Your task to perform on an android device: What's on my calendar tomorrow? Image 0: 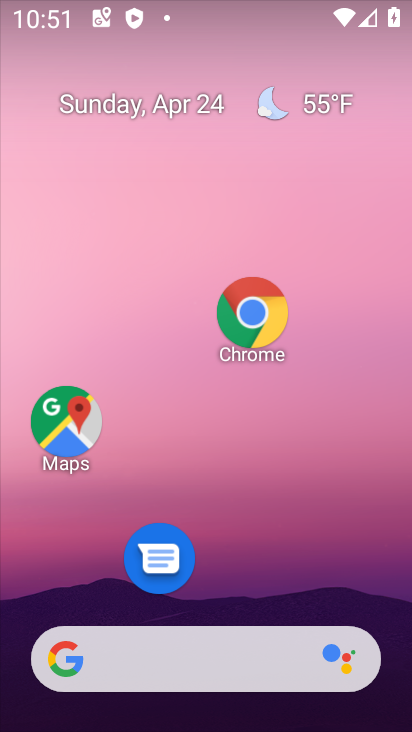
Step 0: drag from (305, 721) to (243, 2)
Your task to perform on an android device: What's on my calendar tomorrow? Image 1: 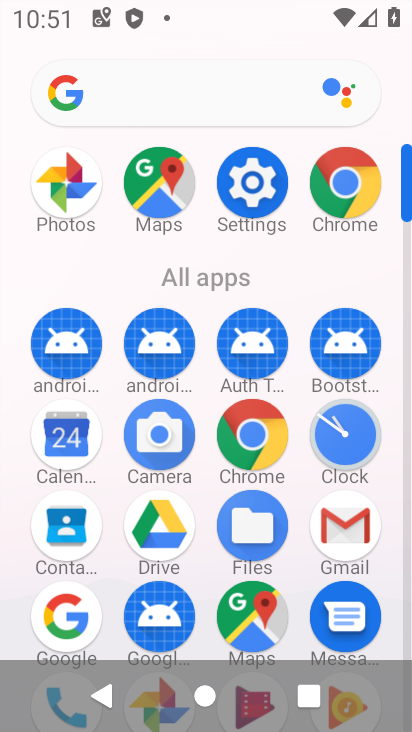
Step 1: click (168, 131)
Your task to perform on an android device: What's on my calendar tomorrow? Image 2: 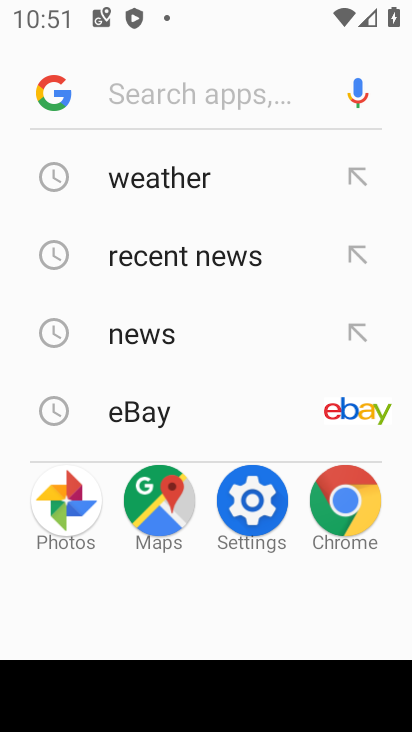
Step 2: press home button
Your task to perform on an android device: What's on my calendar tomorrow? Image 3: 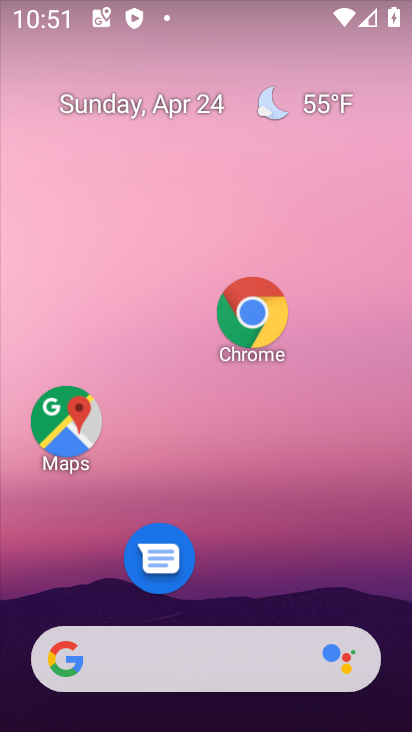
Step 3: drag from (238, 362) to (154, 72)
Your task to perform on an android device: What's on my calendar tomorrow? Image 4: 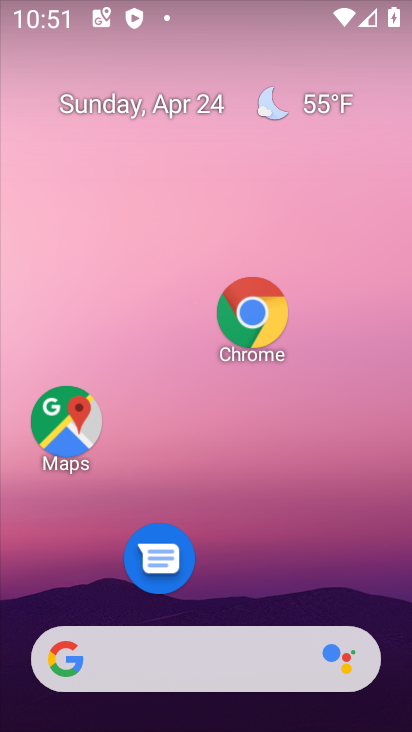
Step 4: drag from (273, 543) to (222, 304)
Your task to perform on an android device: What's on my calendar tomorrow? Image 5: 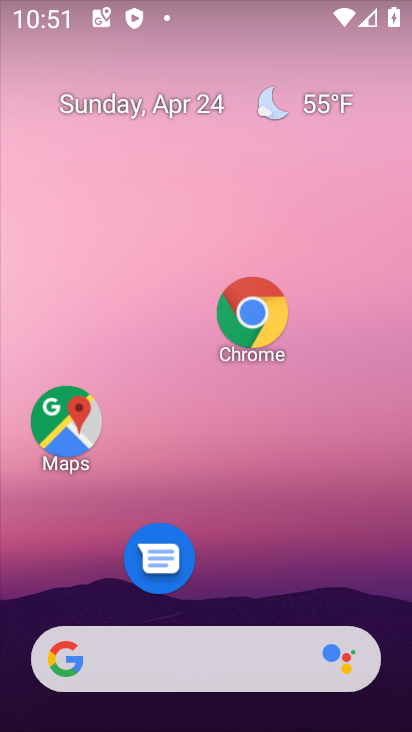
Step 5: drag from (229, 655) to (223, 40)
Your task to perform on an android device: What's on my calendar tomorrow? Image 6: 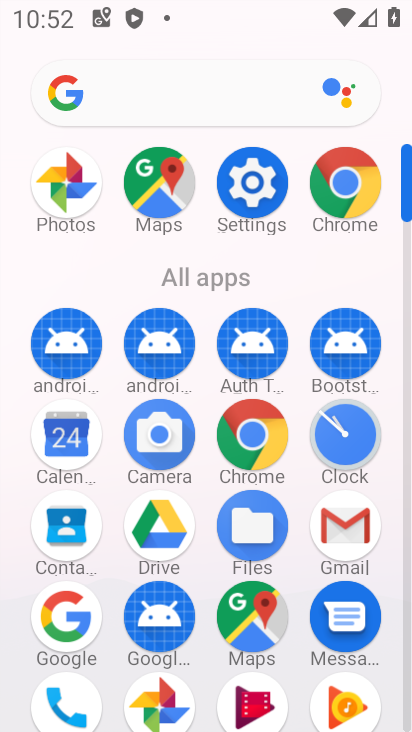
Step 6: click (66, 436)
Your task to perform on an android device: What's on my calendar tomorrow? Image 7: 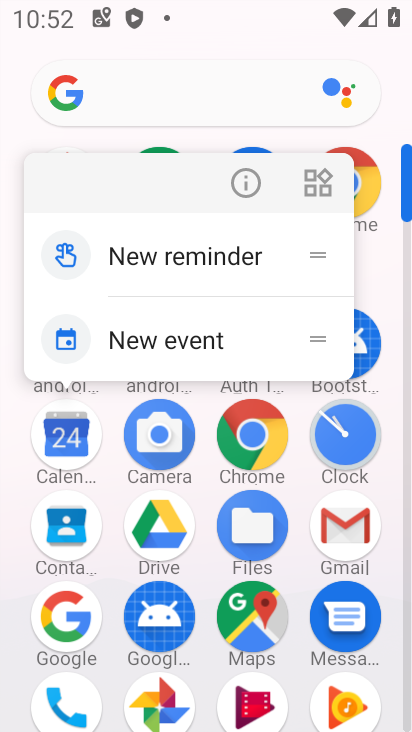
Step 7: click (71, 436)
Your task to perform on an android device: What's on my calendar tomorrow? Image 8: 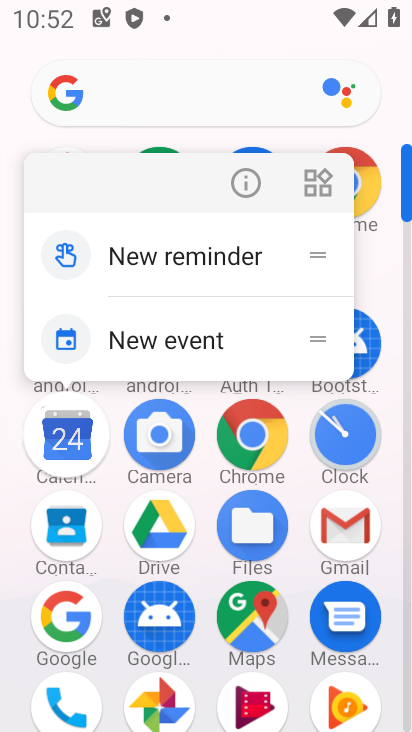
Step 8: click (71, 436)
Your task to perform on an android device: What's on my calendar tomorrow? Image 9: 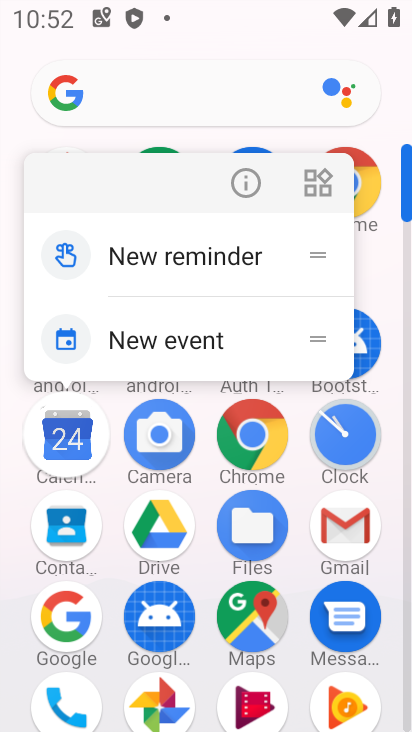
Step 9: click (71, 436)
Your task to perform on an android device: What's on my calendar tomorrow? Image 10: 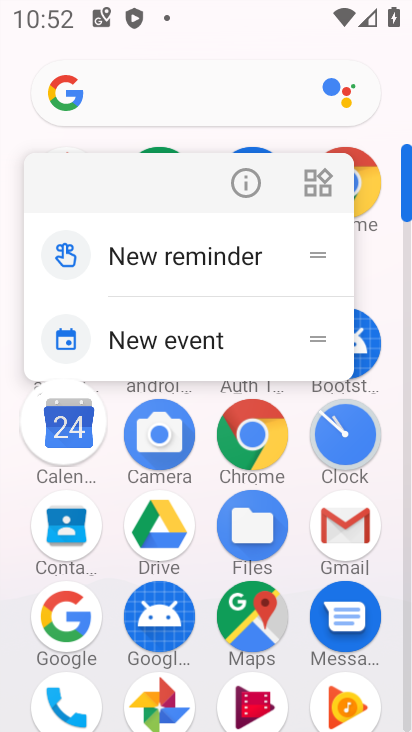
Step 10: click (65, 422)
Your task to perform on an android device: What's on my calendar tomorrow? Image 11: 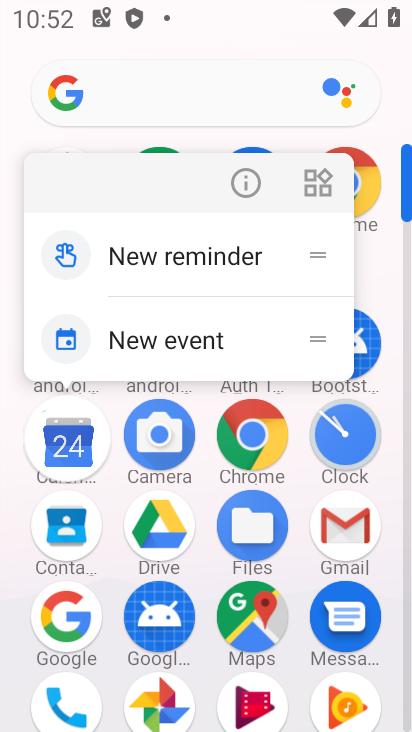
Step 11: click (66, 422)
Your task to perform on an android device: What's on my calendar tomorrow? Image 12: 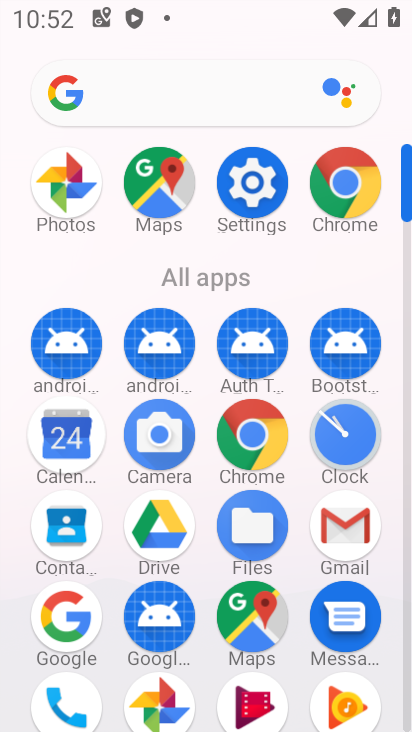
Step 12: click (80, 442)
Your task to perform on an android device: What's on my calendar tomorrow? Image 13: 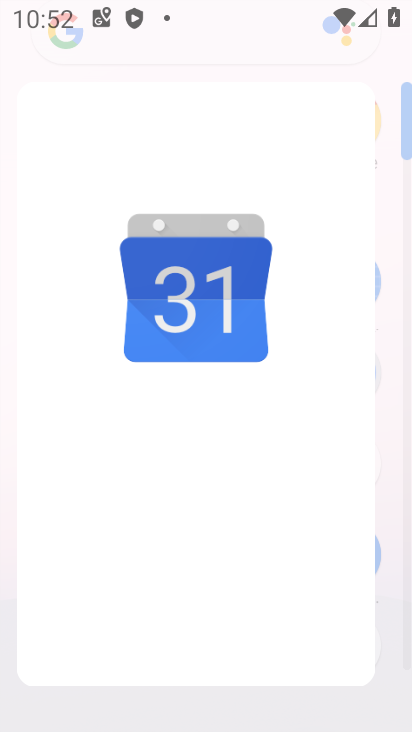
Step 13: click (74, 432)
Your task to perform on an android device: What's on my calendar tomorrow? Image 14: 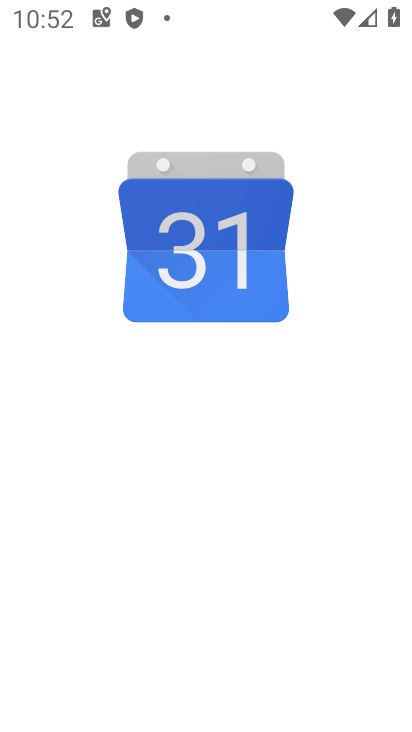
Step 14: click (75, 443)
Your task to perform on an android device: What's on my calendar tomorrow? Image 15: 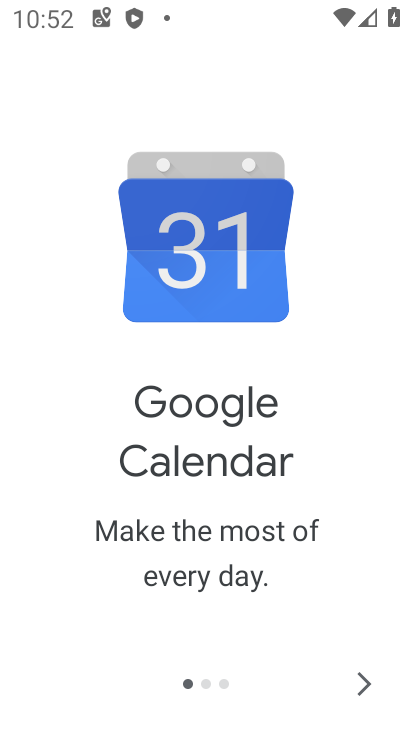
Step 15: click (364, 684)
Your task to perform on an android device: What's on my calendar tomorrow? Image 16: 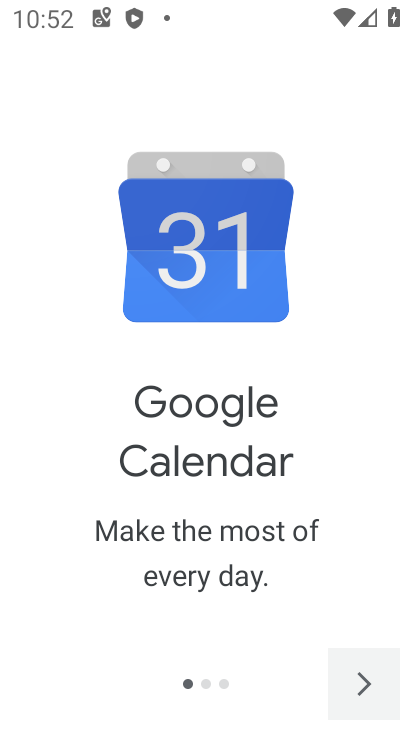
Step 16: click (363, 683)
Your task to perform on an android device: What's on my calendar tomorrow? Image 17: 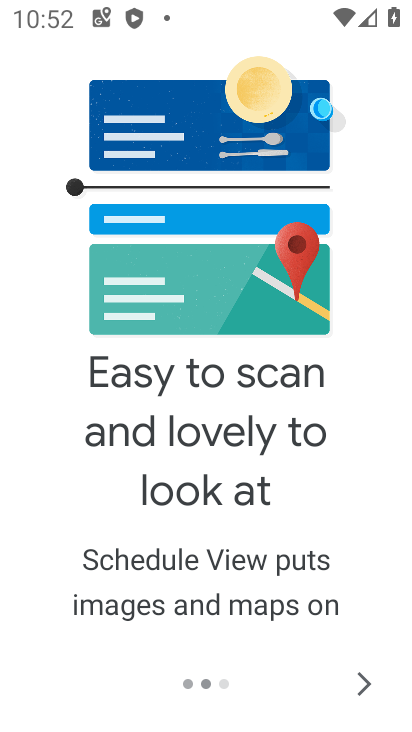
Step 17: click (363, 683)
Your task to perform on an android device: What's on my calendar tomorrow? Image 18: 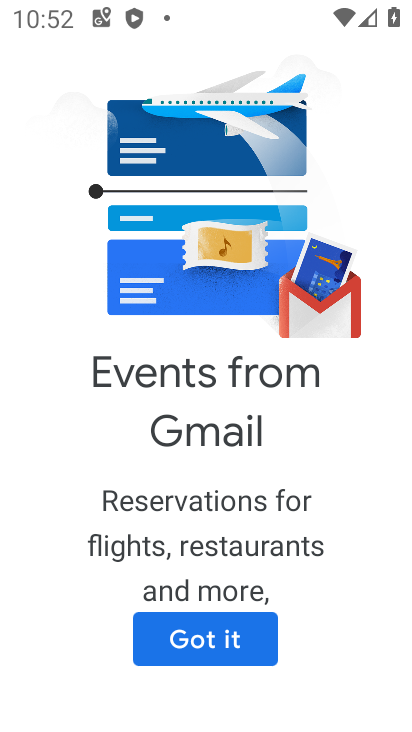
Step 18: click (363, 685)
Your task to perform on an android device: What's on my calendar tomorrow? Image 19: 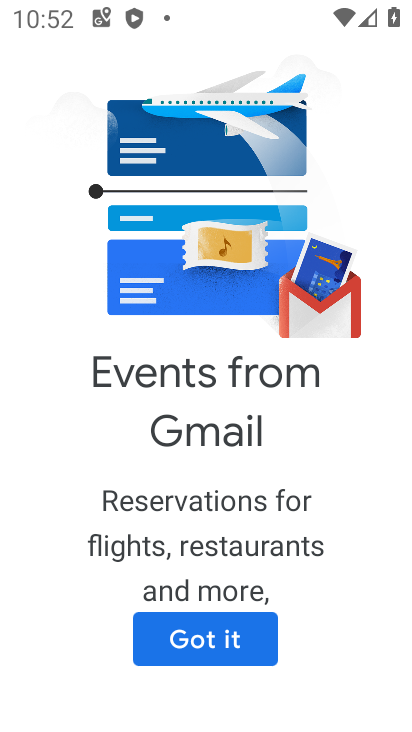
Step 19: click (193, 634)
Your task to perform on an android device: What's on my calendar tomorrow? Image 20: 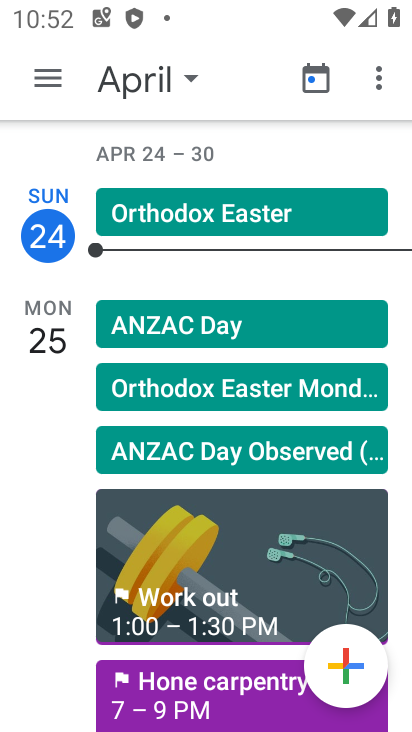
Step 20: drag from (193, 364) to (180, 162)
Your task to perform on an android device: What's on my calendar tomorrow? Image 21: 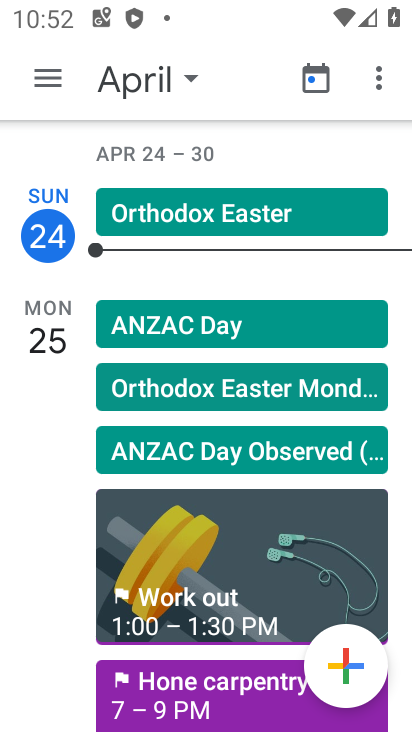
Step 21: drag from (156, 1) to (172, 260)
Your task to perform on an android device: What's on my calendar tomorrow? Image 22: 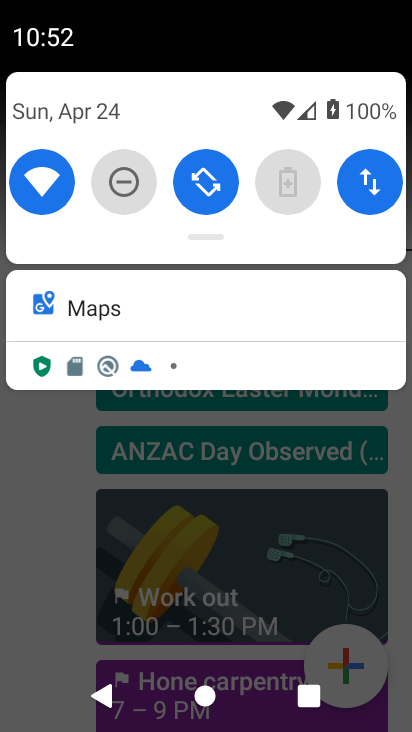
Step 22: click (190, 264)
Your task to perform on an android device: What's on my calendar tomorrow? Image 23: 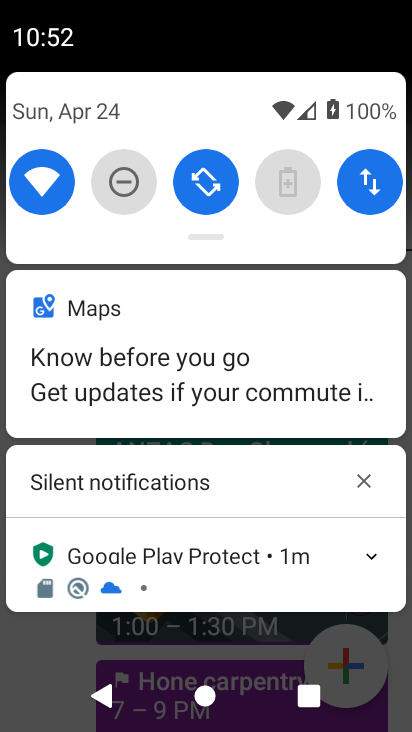
Step 23: click (361, 480)
Your task to perform on an android device: What's on my calendar tomorrow? Image 24: 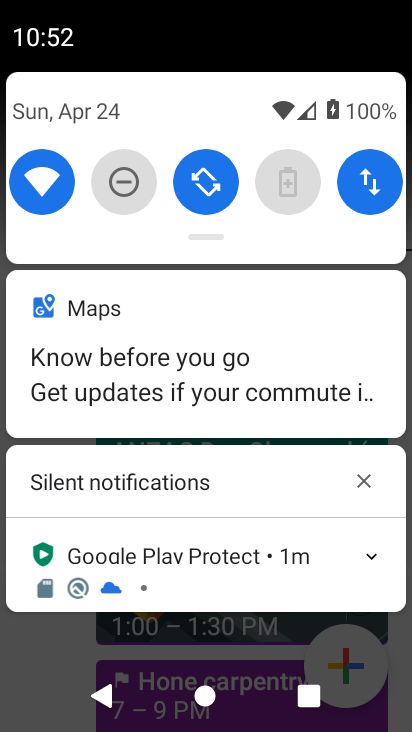
Step 24: click (361, 480)
Your task to perform on an android device: What's on my calendar tomorrow? Image 25: 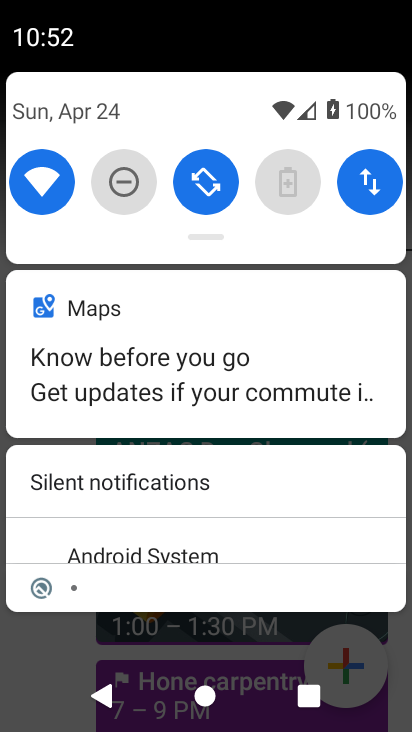
Step 25: click (135, 635)
Your task to perform on an android device: What's on my calendar tomorrow? Image 26: 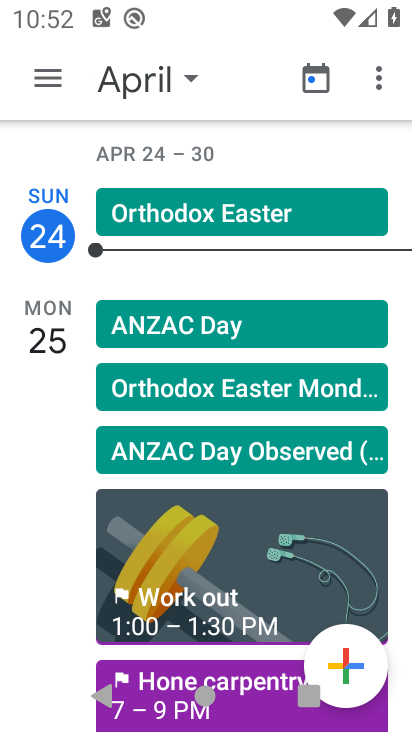
Step 26: click (32, 680)
Your task to perform on an android device: What's on my calendar tomorrow? Image 27: 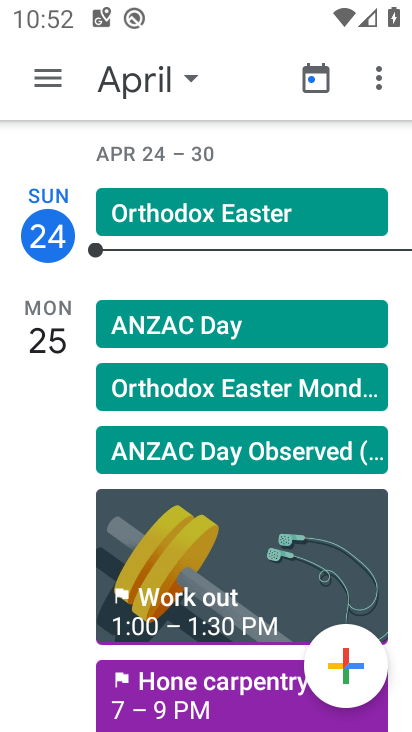
Step 27: drag from (191, 223) to (191, 559)
Your task to perform on an android device: What's on my calendar tomorrow? Image 28: 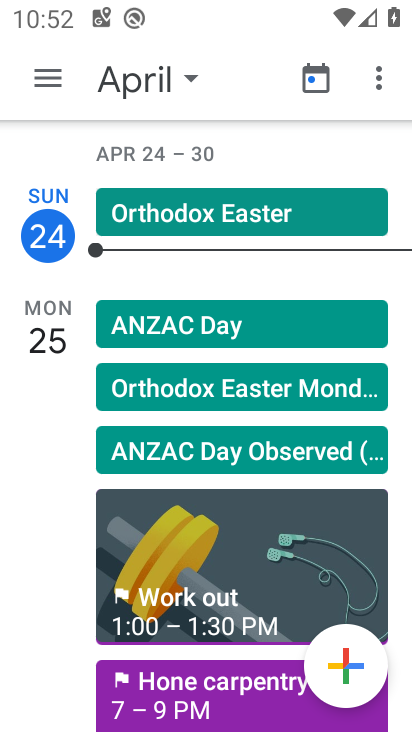
Step 28: click (174, 456)
Your task to perform on an android device: What's on my calendar tomorrow? Image 29: 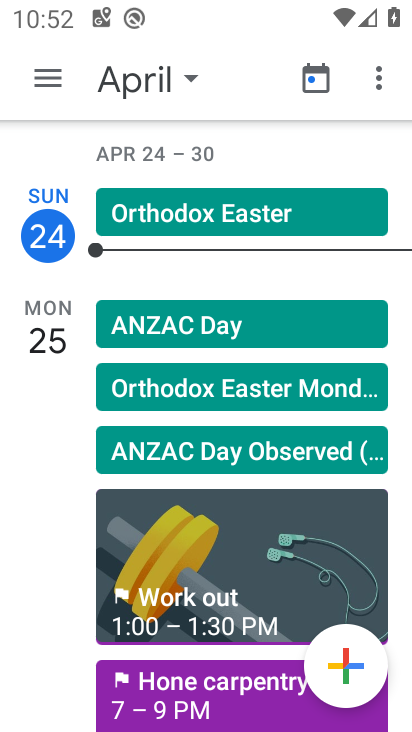
Step 29: task complete